Your task to perform on an android device: Go to settings Image 0: 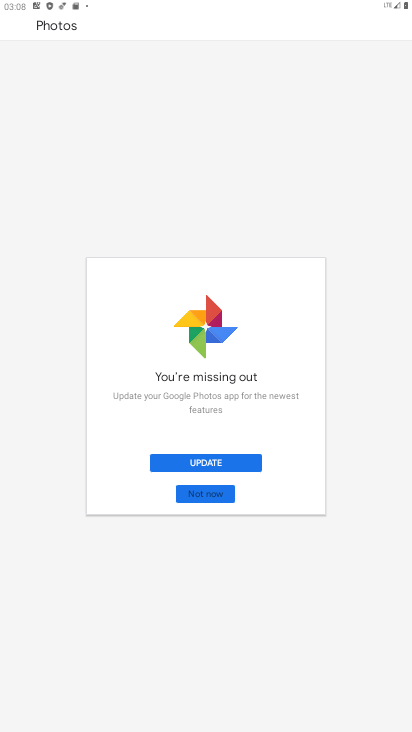
Step 0: press home button
Your task to perform on an android device: Go to settings Image 1: 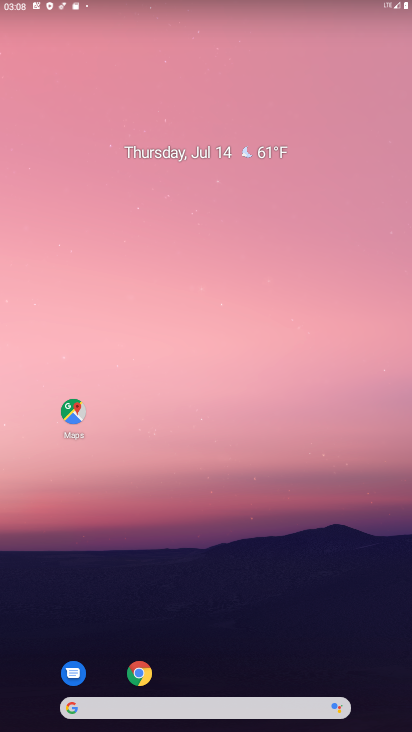
Step 1: drag from (283, 653) to (262, 134)
Your task to perform on an android device: Go to settings Image 2: 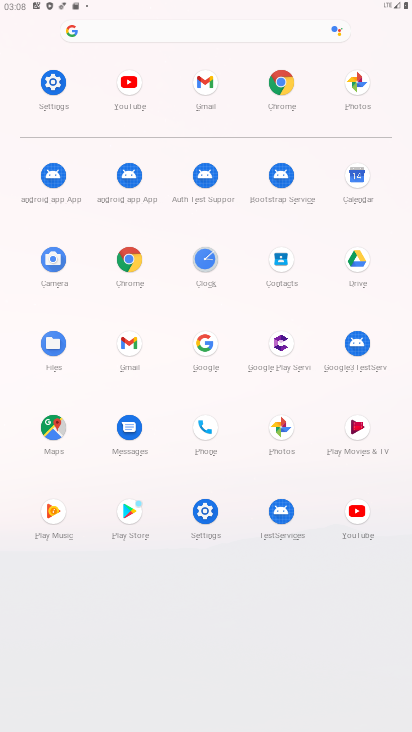
Step 2: click (60, 107)
Your task to perform on an android device: Go to settings Image 3: 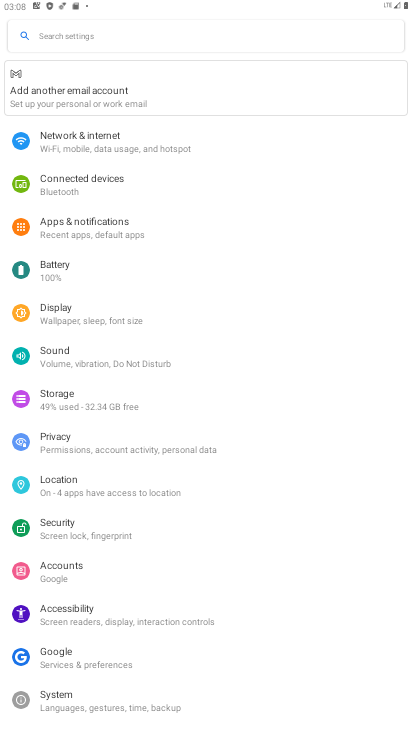
Step 3: task complete